Your task to perform on an android device: Clear the shopping cart on target. Search for "bose soundlink mini" on target, select the first entry, add it to the cart, then select checkout. Image 0: 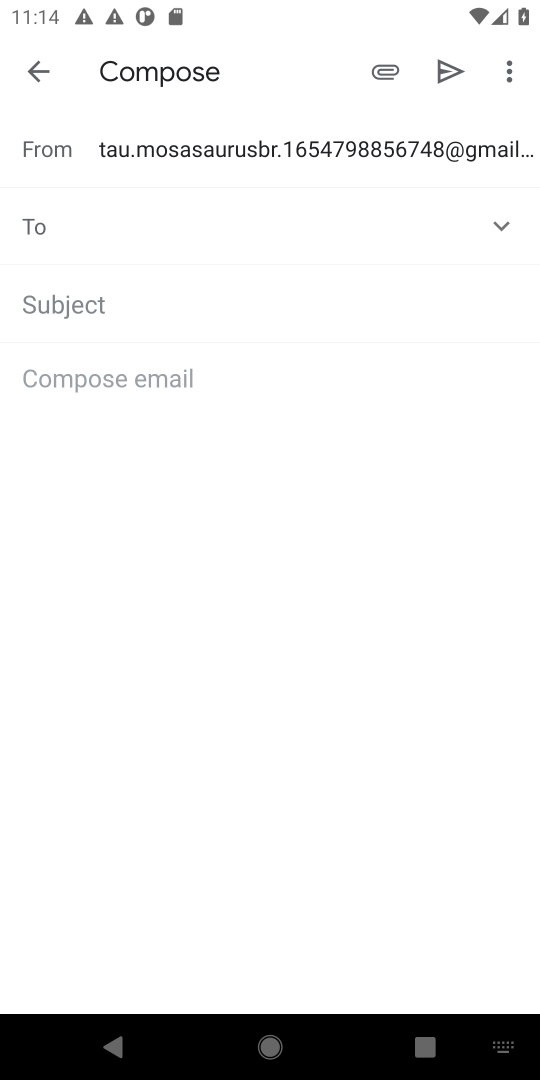
Step 0: press home button
Your task to perform on an android device: Clear the shopping cart on target. Search for "bose soundlink mini" on target, select the first entry, add it to the cart, then select checkout. Image 1: 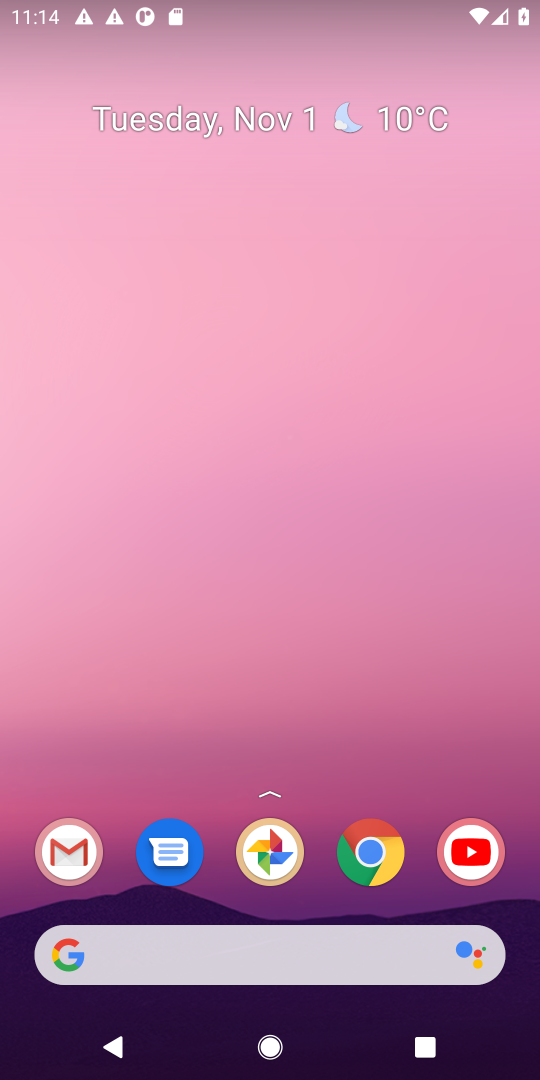
Step 1: click (69, 966)
Your task to perform on an android device: Clear the shopping cart on target. Search for "bose soundlink mini" on target, select the first entry, add it to the cart, then select checkout. Image 2: 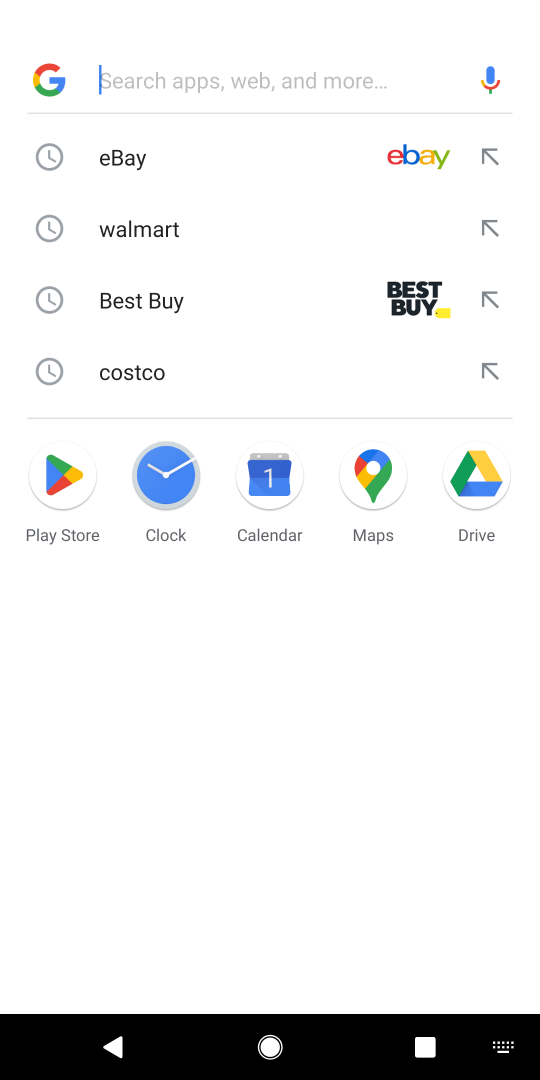
Step 2: type "target"
Your task to perform on an android device: Clear the shopping cart on target. Search for "bose soundlink mini" on target, select the first entry, add it to the cart, then select checkout. Image 3: 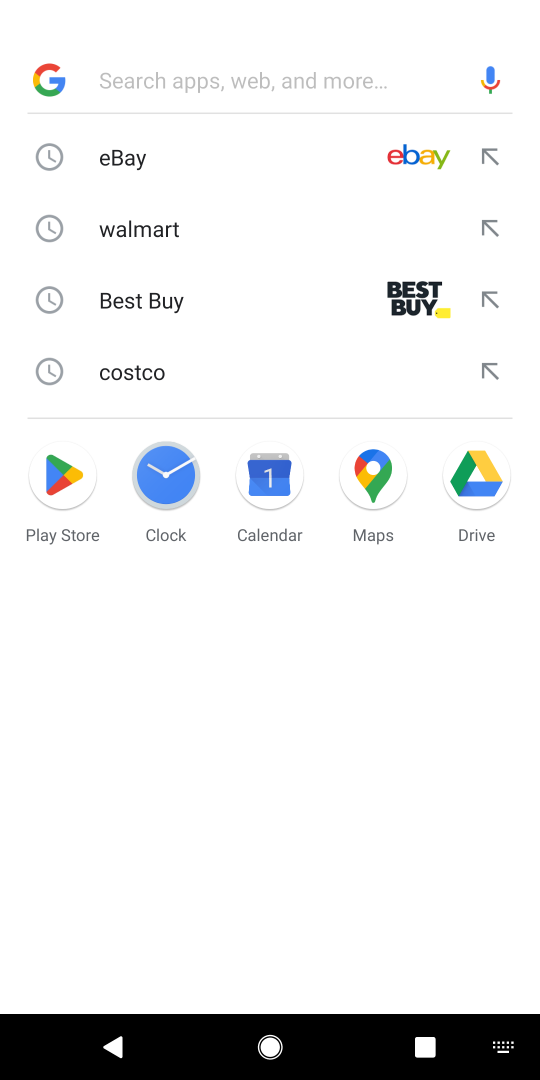
Step 3: click (114, 72)
Your task to perform on an android device: Clear the shopping cart on target. Search for "bose soundlink mini" on target, select the first entry, add it to the cart, then select checkout. Image 4: 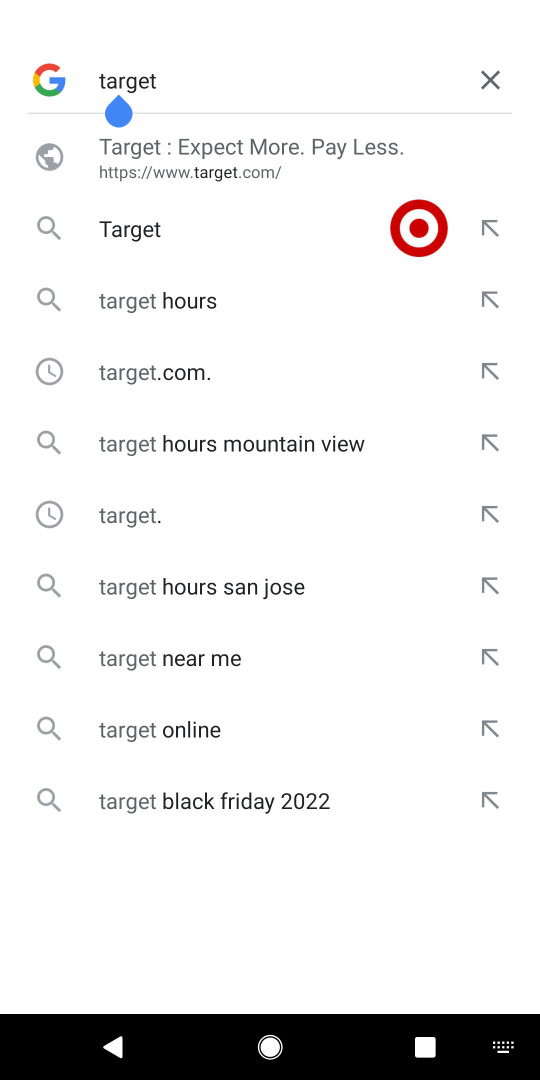
Step 4: click (112, 226)
Your task to perform on an android device: Clear the shopping cart on target. Search for "bose soundlink mini" on target, select the first entry, add it to the cart, then select checkout. Image 5: 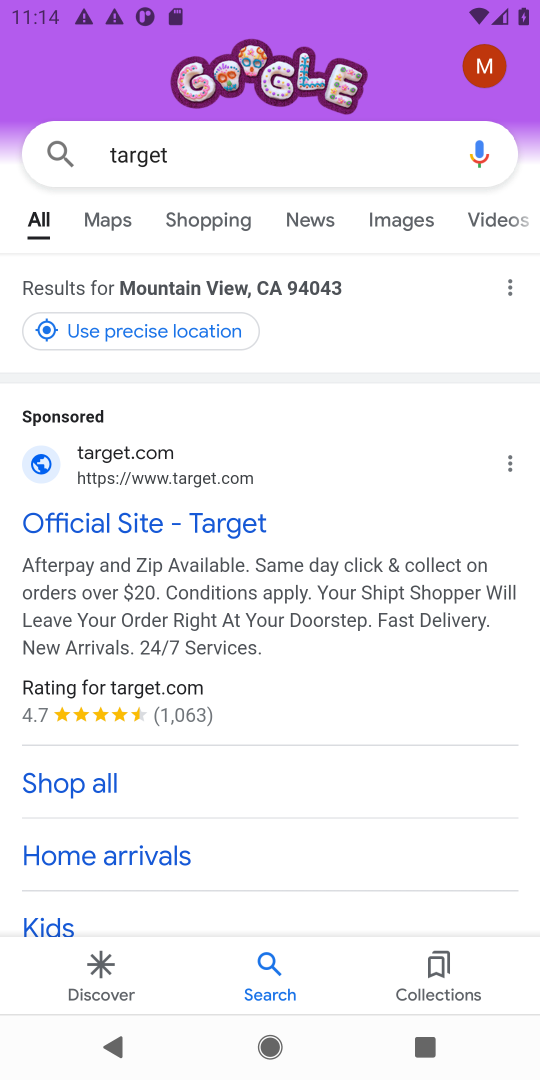
Step 5: drag from (306, 723) to (333, 178)
Your task to perform on an android device: Clear the shopping cart on target. Search for "bose soundlink mini" on target, select the first entry, add it to the cart, then select checkout. Image 6: 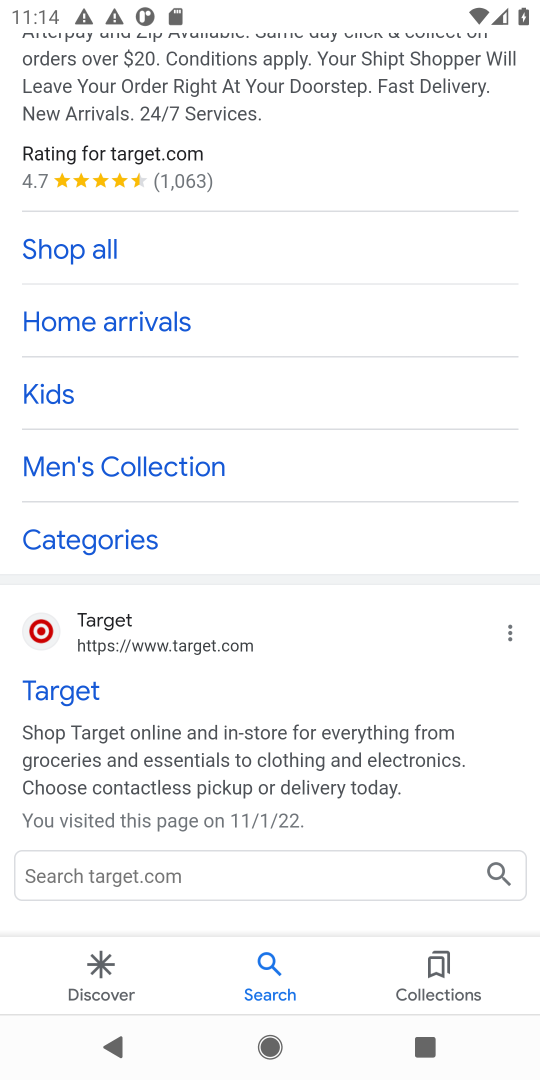
Step 6: click (77, 695)
Your task to perform on an android device: Clear the shopping cart on target. Search for "bose soundlink mini" on target, select the first entry, add it to the cart, then select checkout. Image 7: 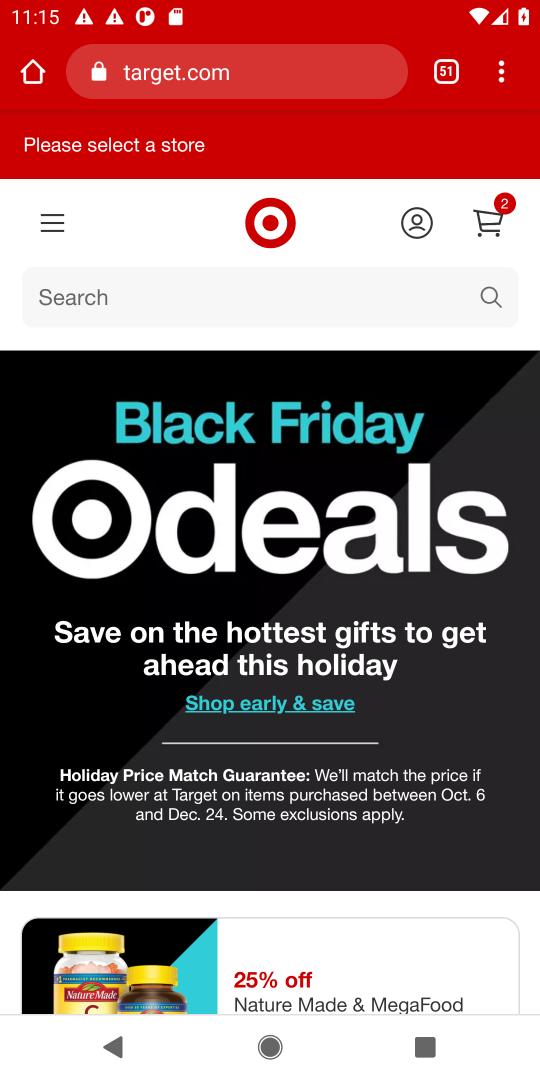
Step 7: click (494, 219)
Your task to perform on an android device: Clear the shopping cart on target. Search for "bose soundlink mini" on target, select the first entry, add it to the cart, then select checkout. Image 8: 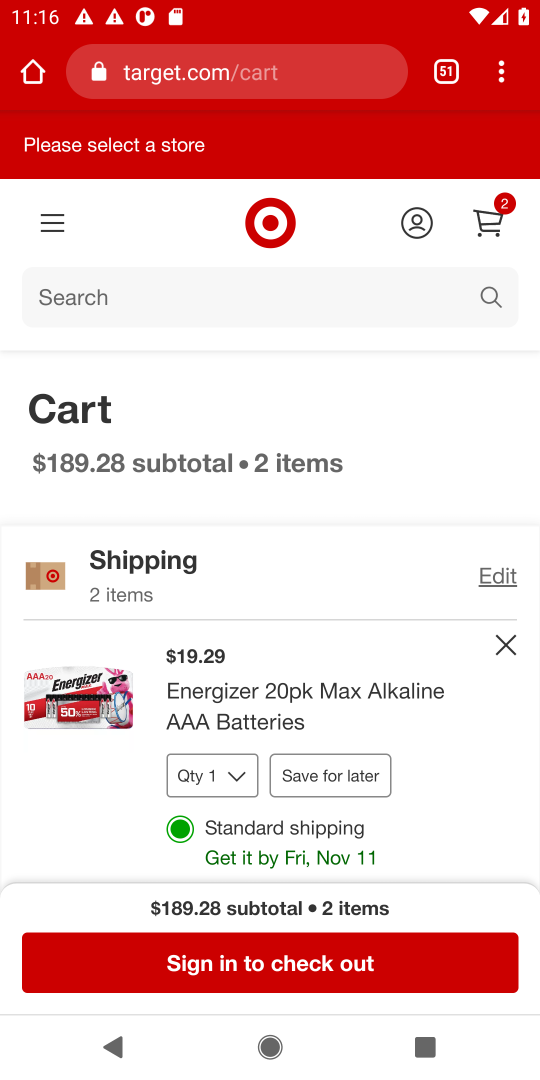
Step 8: click (494, 646)
Your task to perform on an android device: Clear the shopping cart on target. Search for "bose soundlink mini" on target, select the first entry, add it to the cart, then select checkout. Image 9: 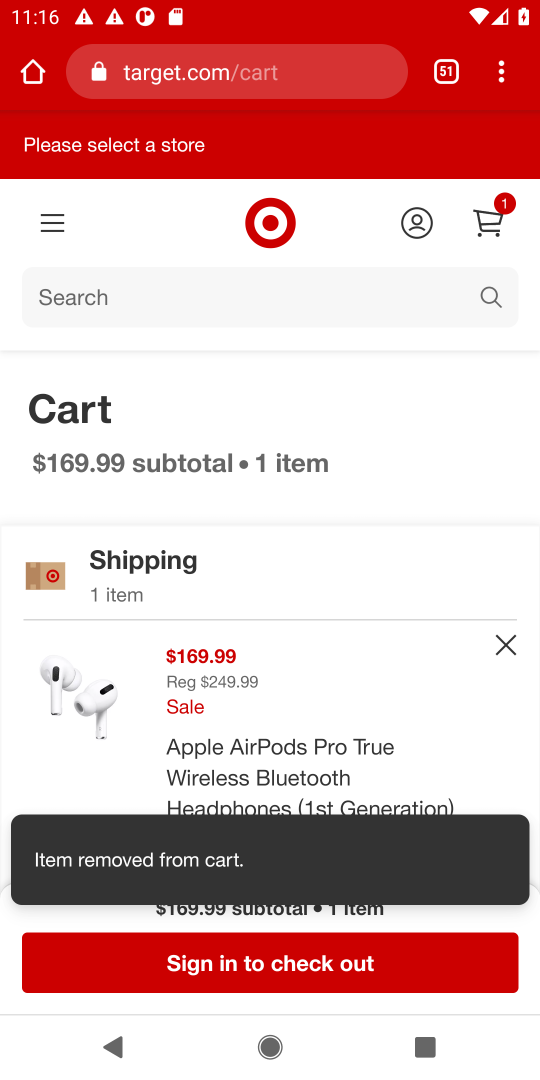
Step 9: click (512, 642)
Your task to perform on an android device: Clear the shopping cart on target. Search for "bose soundlink mini" on target, select the first entry, add it to the cart, then select checkout. Image 10: 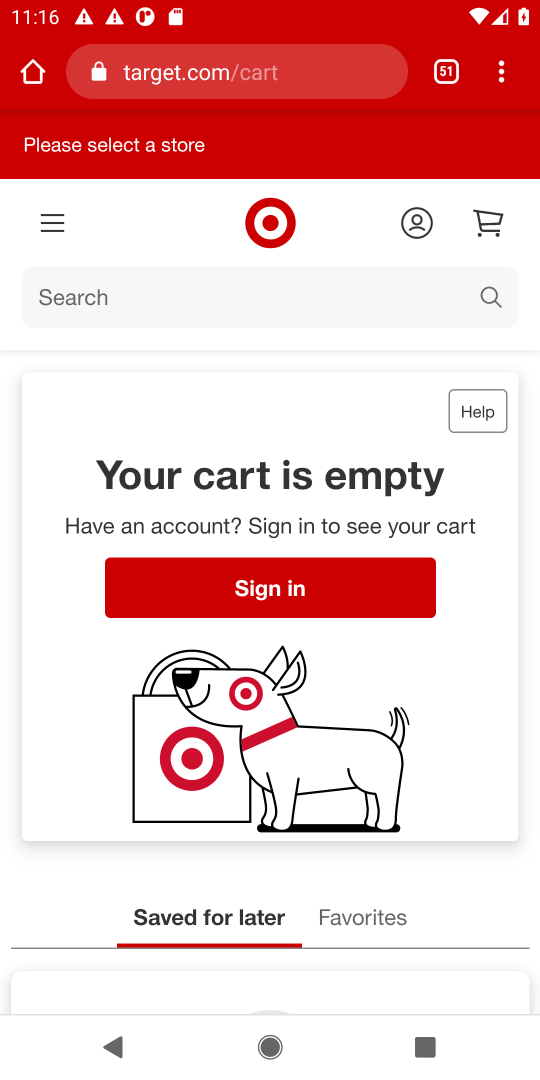
Step 10: click (138, 310)
Your task to perform on an android device: Clear the shopping cart on target. Search for "bose soundlink mini" on target, select the first entry, add it to the cart, then select checkout. Image 11: 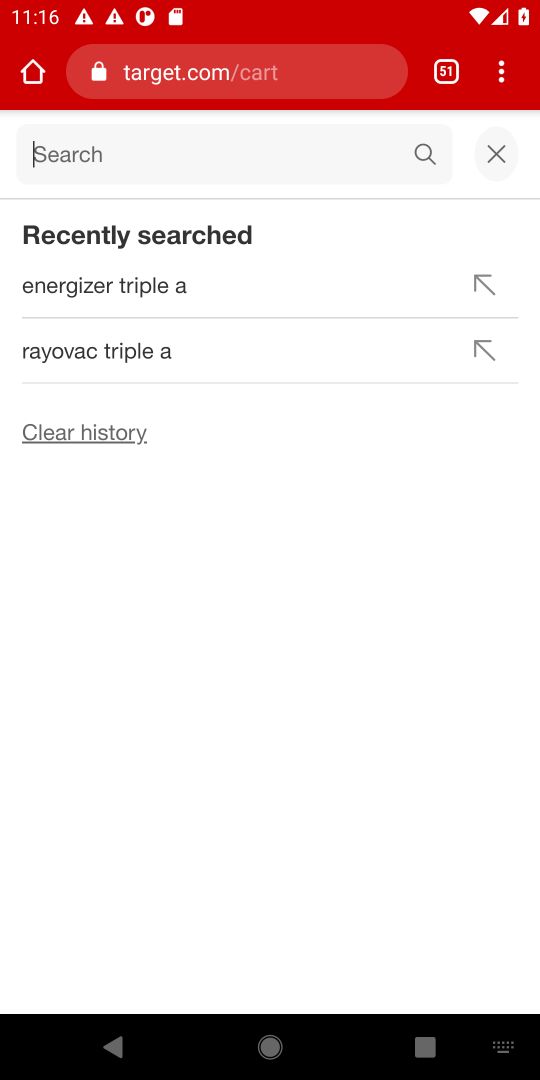
Step 11: type "bose soundlink mini"
Your task to perform on an android device: Clear the shopping cart on target. Search for "bose soundlink mini" on target, select the first entry, add it to the cart, then select checkout. Image 12: 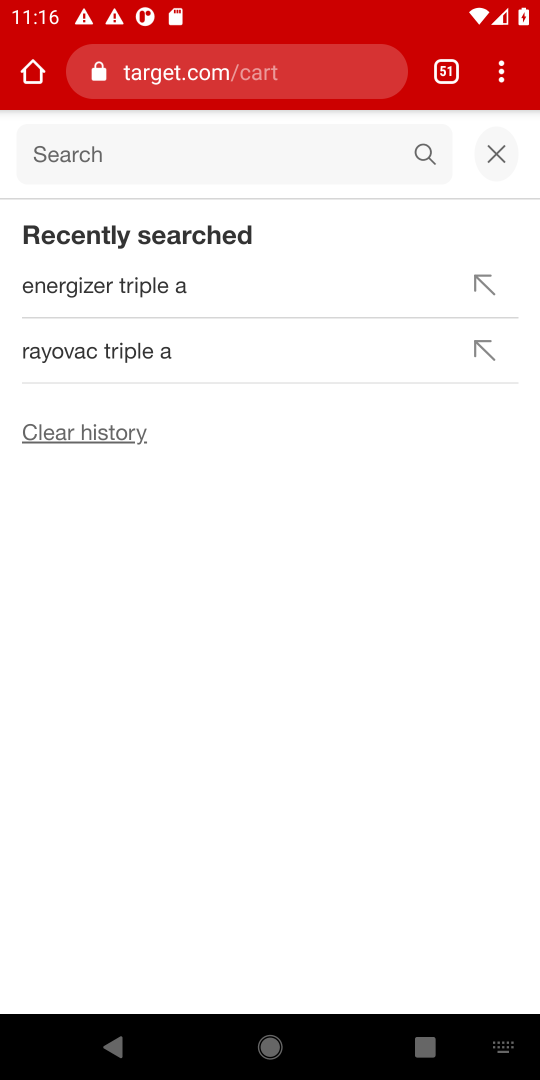
Step 12: click (125, 156)
Your task to perform on an android device: Clear the shopping cart on target. Search for "bose soundlink mini" on target, select the first entry, add it to the cart, then select checkout. Image 13: 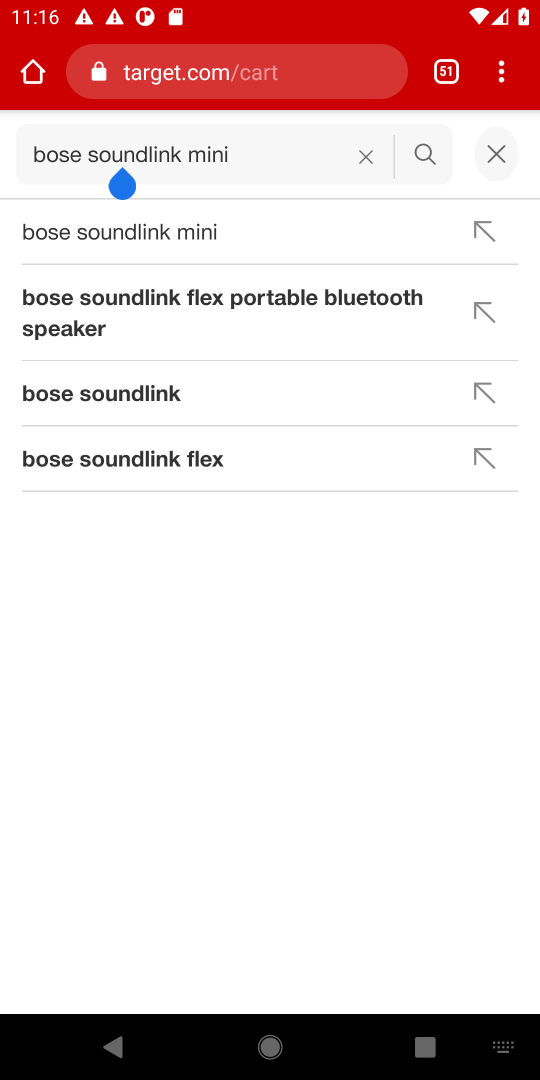
Step 13: click (164, 235)
Your task to perform on an android device: Clear the shopping cart on target. Search for "bose soundlink mini" on target, select the first entry, add it to the cart, then select checkout. Image 14: 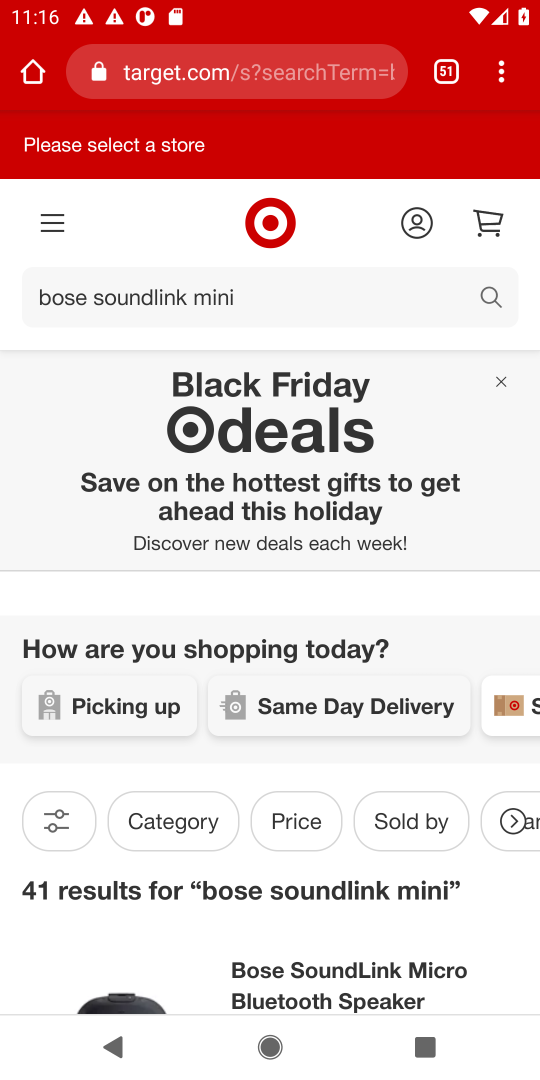
Step 14: task complete